Your task to perform on an android device: Do I have any events tomorrow? Image 0: 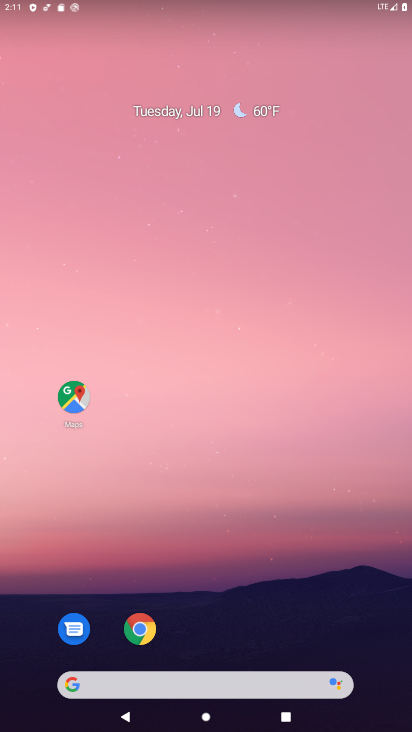
Step 0: drag from (237, 608) to (237, 247)
Your task to perform on an android device: Do I have any events tomorrow? Image 1: 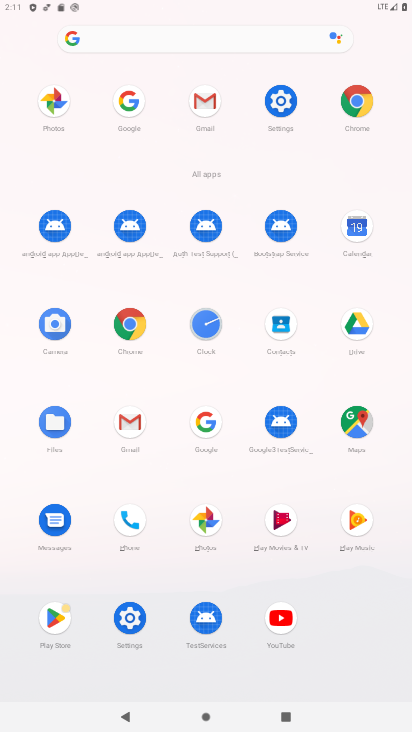
Step 1: click (345, 236)
Your task to perform on an android device: Do I have any events tomorrow? Image 2: 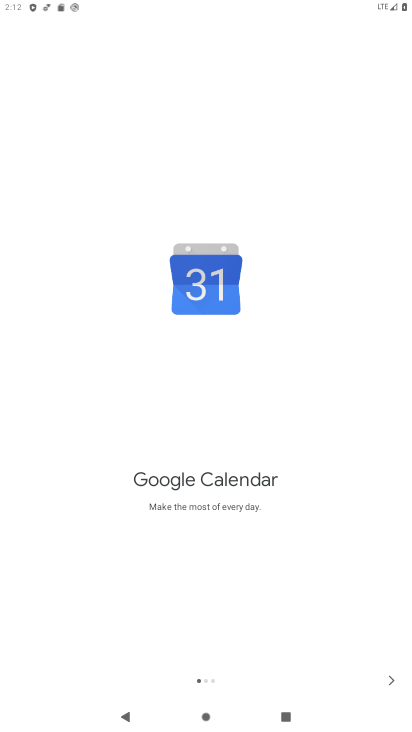
Step 2: click (389, 670)
Your task to perform on an android device: Do I have any events tomorrow? Image 3: 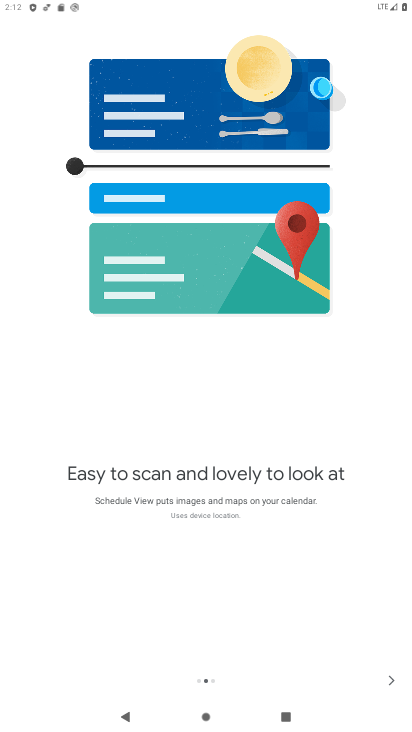
Step 3: click (392, 671)
Your task to perform on an android device: Do I have any events tomorrow? Image 4: 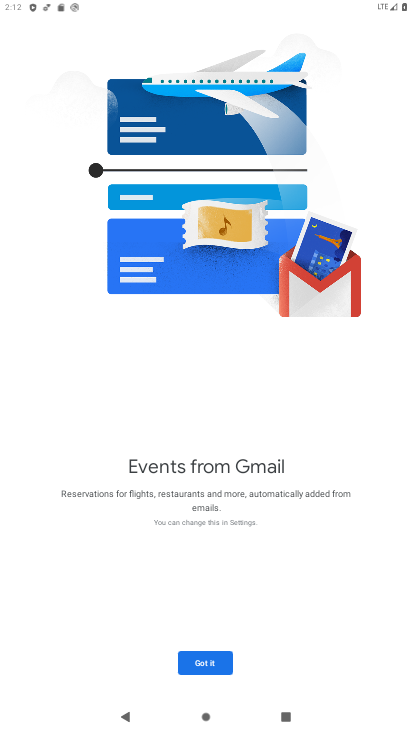
Step 4: click (221, 658)
Your task to perform on an android device: Do I have any events tomorrow? Image 5: 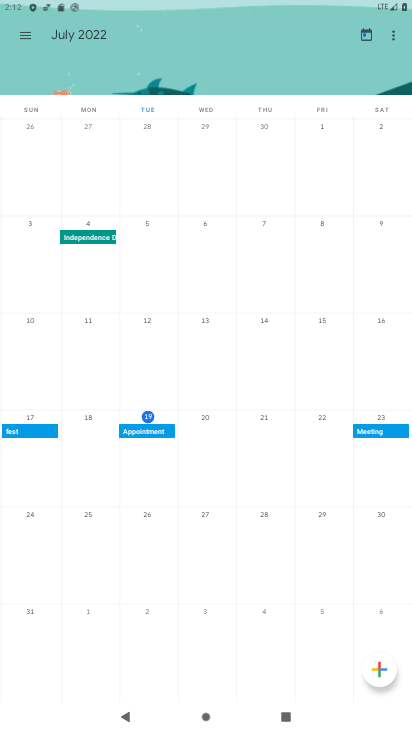
Step 5: click (25, 42)
Your task to perform on an android device: Do I have any events tomorrow? Image 6: 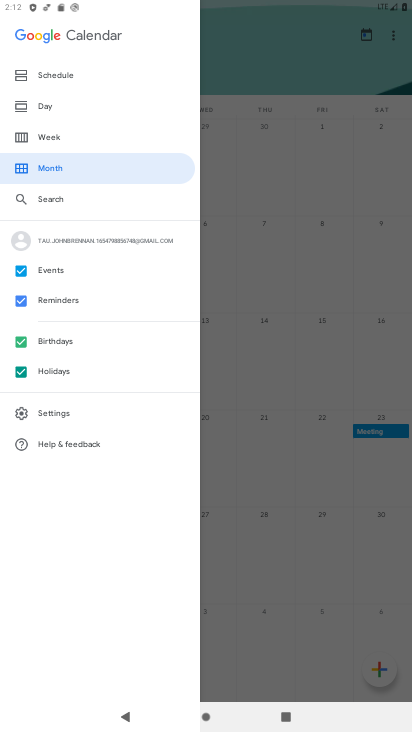
Step 6: click (68, 74)
Your task to perform on an android device: Do I have any events tomorrow? Image 7: 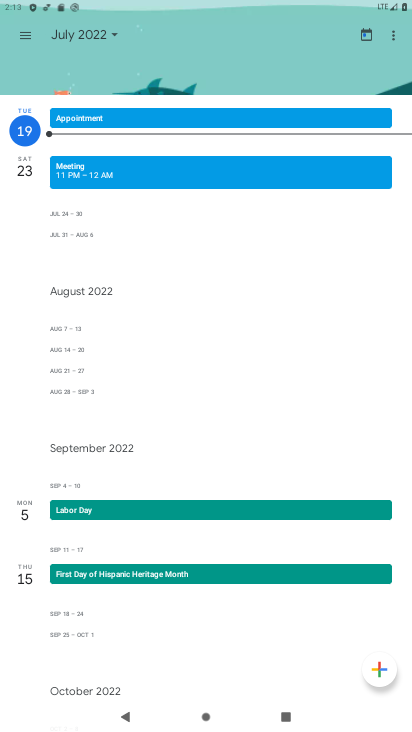
Step 7: click (119, 40)
Your task to perform on an android device: Do I have any events tomorrow? Image 8: 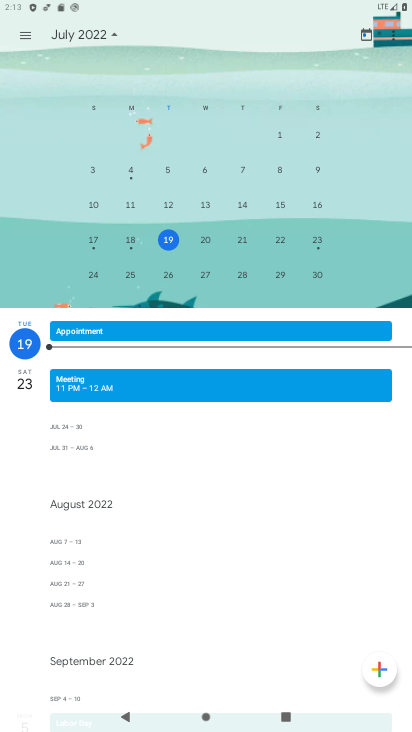
Step 8: click (206, 236)
Your task to perform on an android device: Do I have any events tomorrow? Image 9: 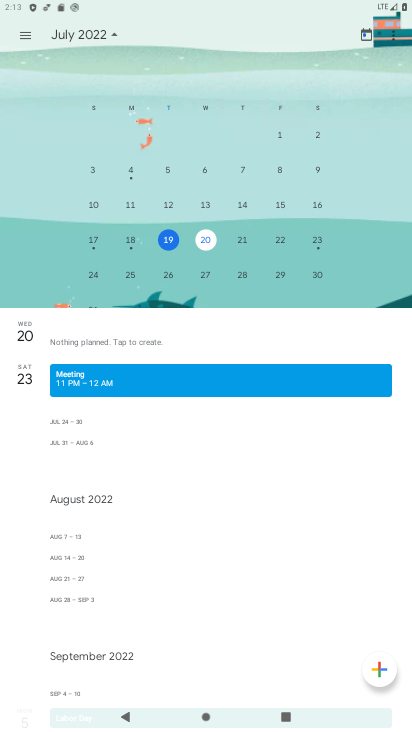
Step 9: task complete